Your task to perform on an android device: open wifi settings Image 0: 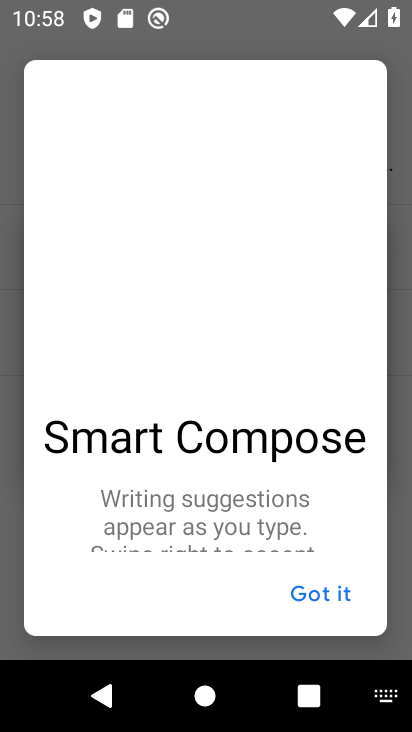
Step 0: press home button
Your task to perform on an android device: open wifi settings Image 1: 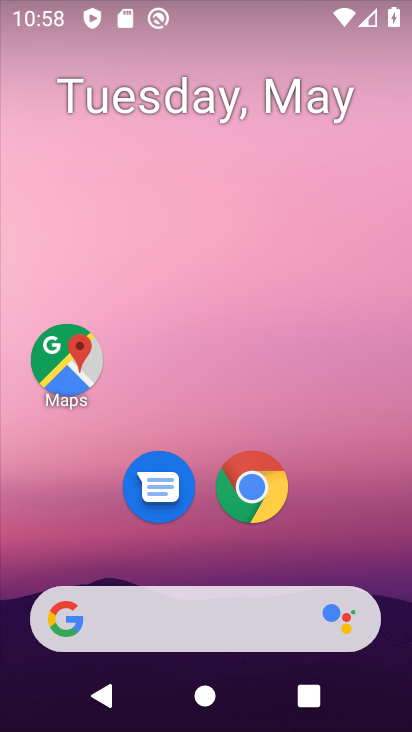
Step 1: drag from (157, 577) to (295, 145)
Your task to perform on an android device: open wifi settings Image 2: 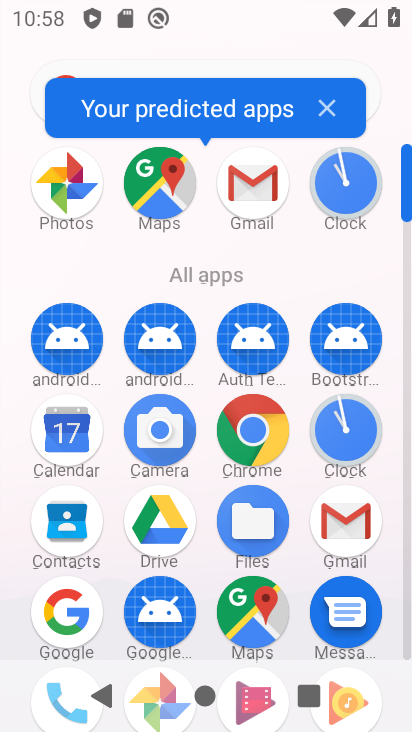
Step 2: drag from (182, 604) to (269, 252)
Your task to perform on an android device: open wifi settings Image 3: 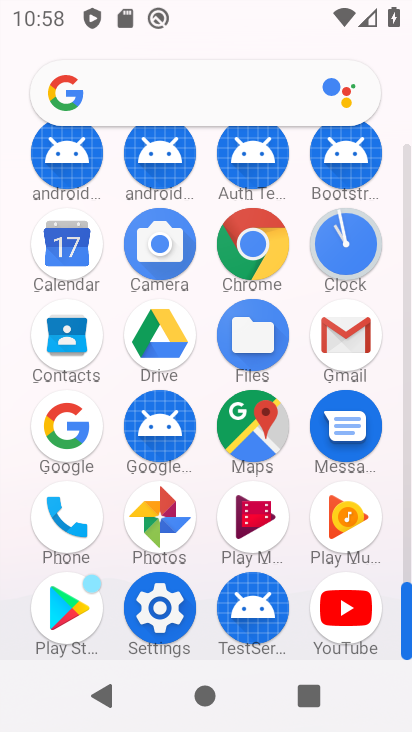
Step 3: click (160, 617)
Your task to perform on an android device: open wifi settings Image 4: 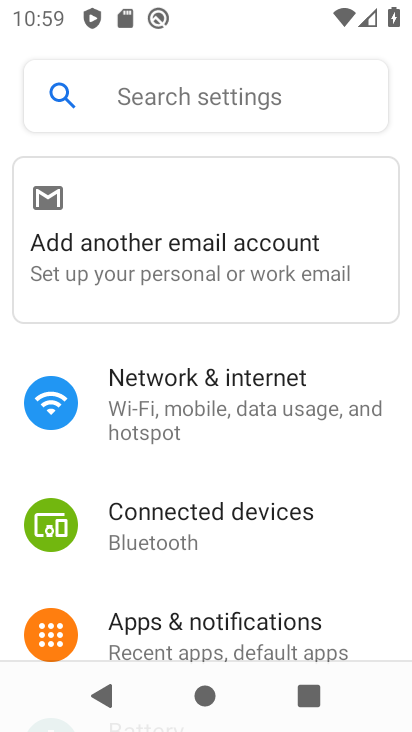
Step 4: click (273, 432)
Your task to perform on an android device: open wifi settings Image 5: 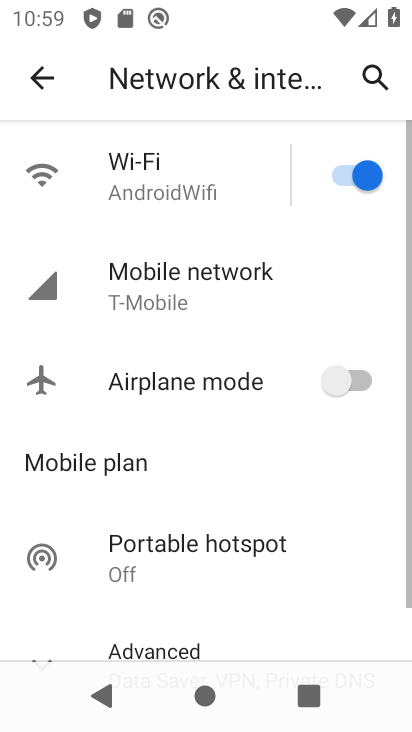
Step 5: click (198, 195)
Your task to perform on an android device: open wifi settings Image 6: 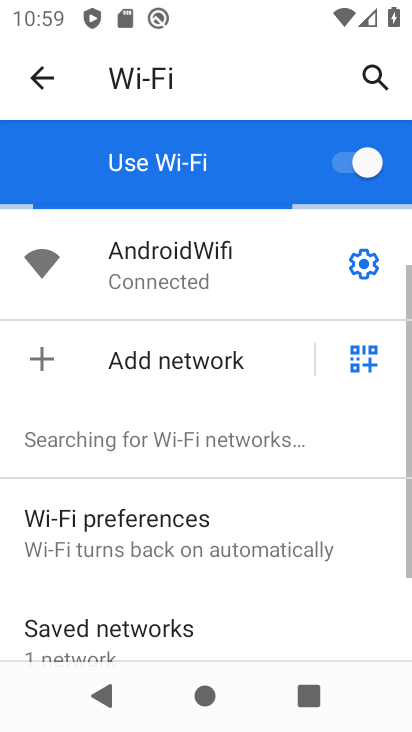
Step 6: task complete